Your task to perform on an android device: turn off notifications settings in the gmail app Image 0: 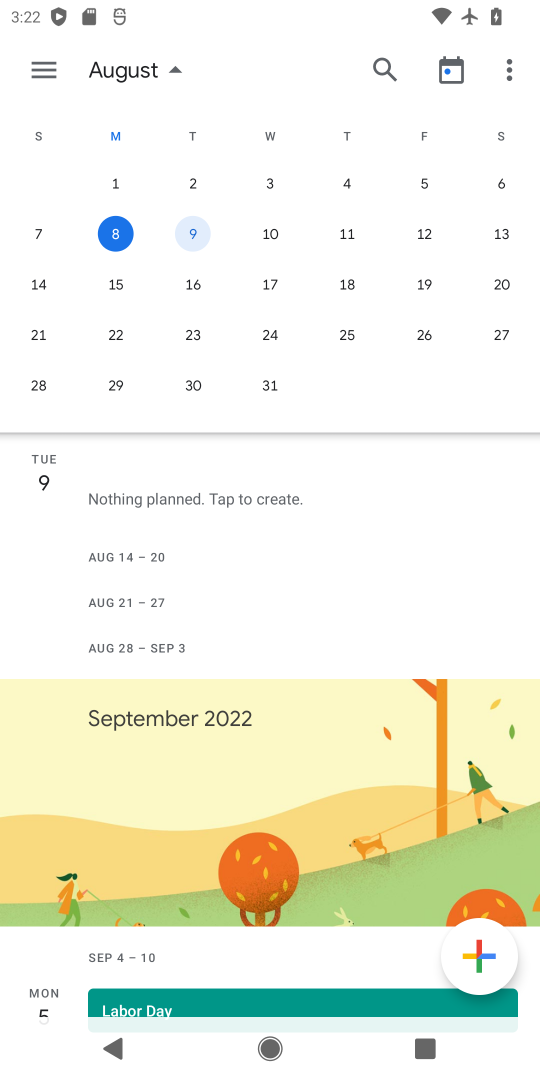
Step 0: press home button
Your task to perform on an android device: turn off notifications settings in the gmail app Image 1: 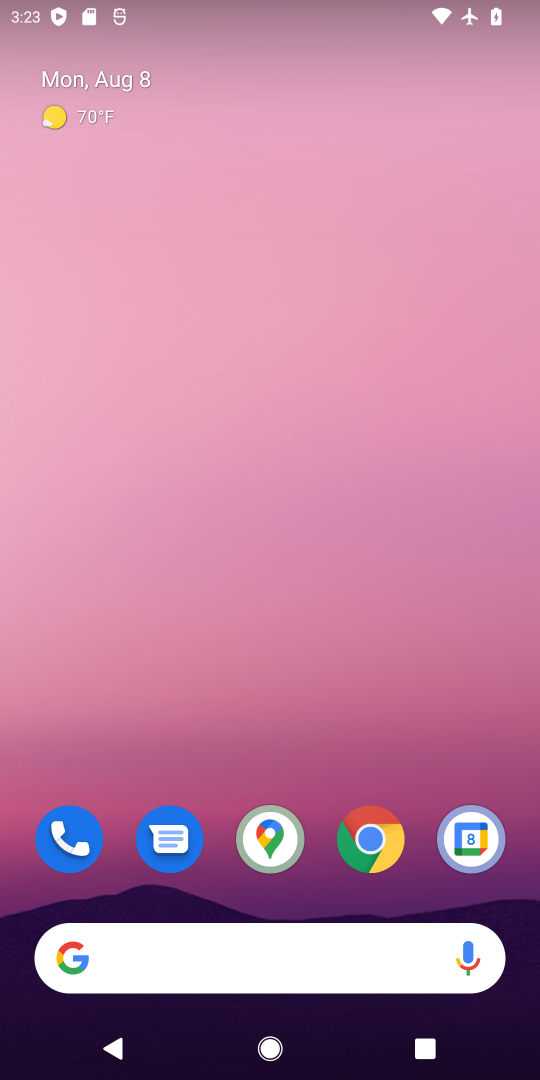
Step 1: drag from (420, 765) to (460, 242)
Your task to perform on an android device: turn off notifications settings in the gmail app Image 2: 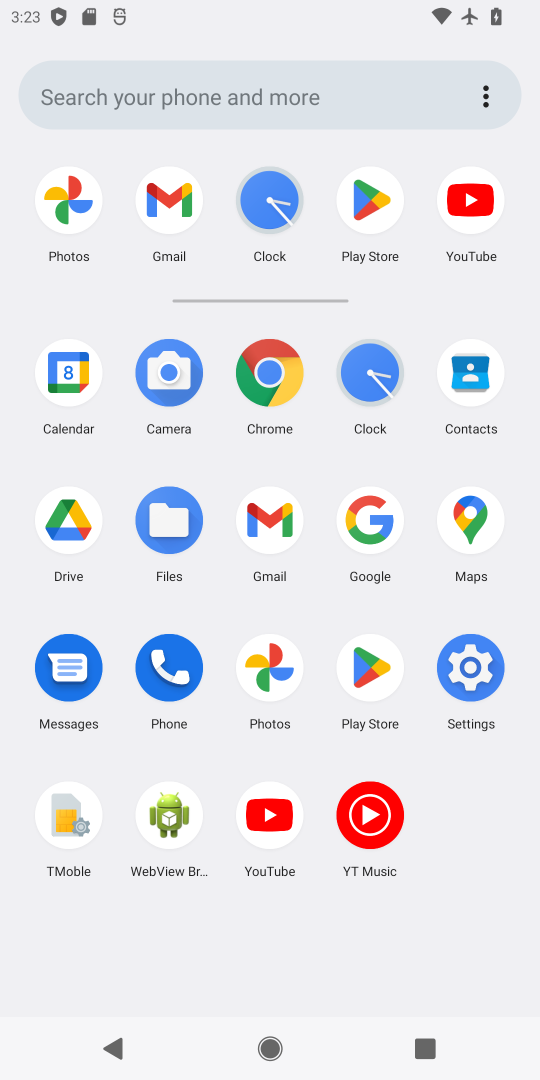
Step 2: click (267, 531)
Your task to perform on an android device: turn off notifications settings in the gmail app Image 3: 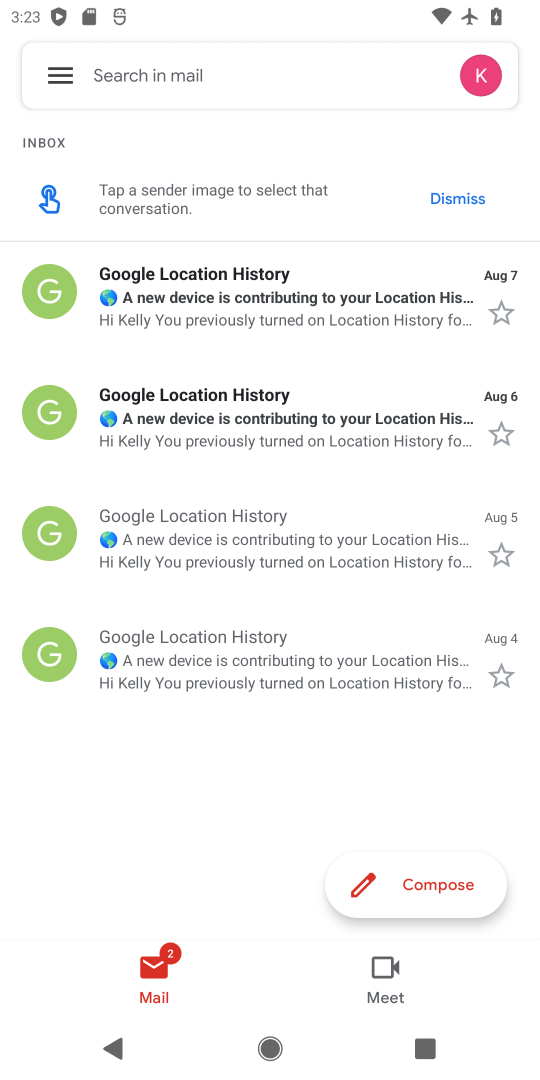
Step 3: click (58, 69)
Your task to perform on an android device: turn off notifications settings in the gmail app Image 4: 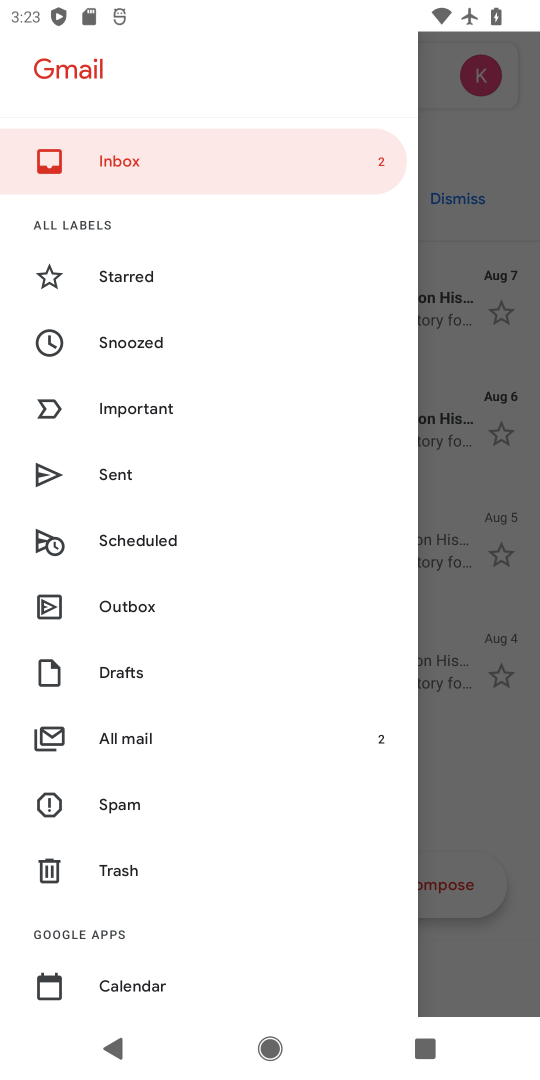
Step 4: drag from (288, 574) to (326, 419)
Your task to perform on an android device: turn off notifications settings in the gmail app Image 5: 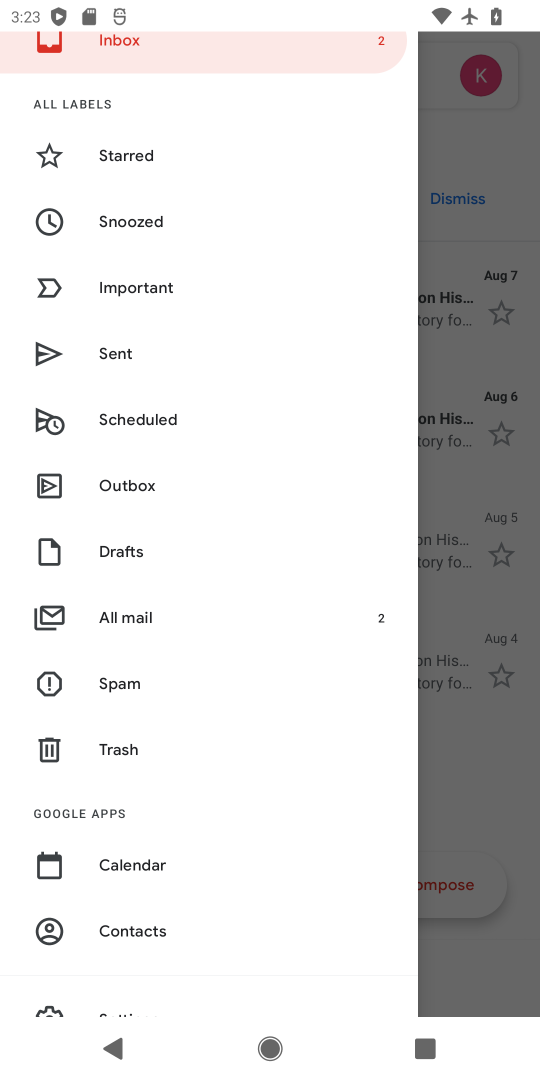
Step 5: drag from (291, 653) to (280, 464)
Your task to perform on an android device: turn off notifications settings in the gmail app Image 6: 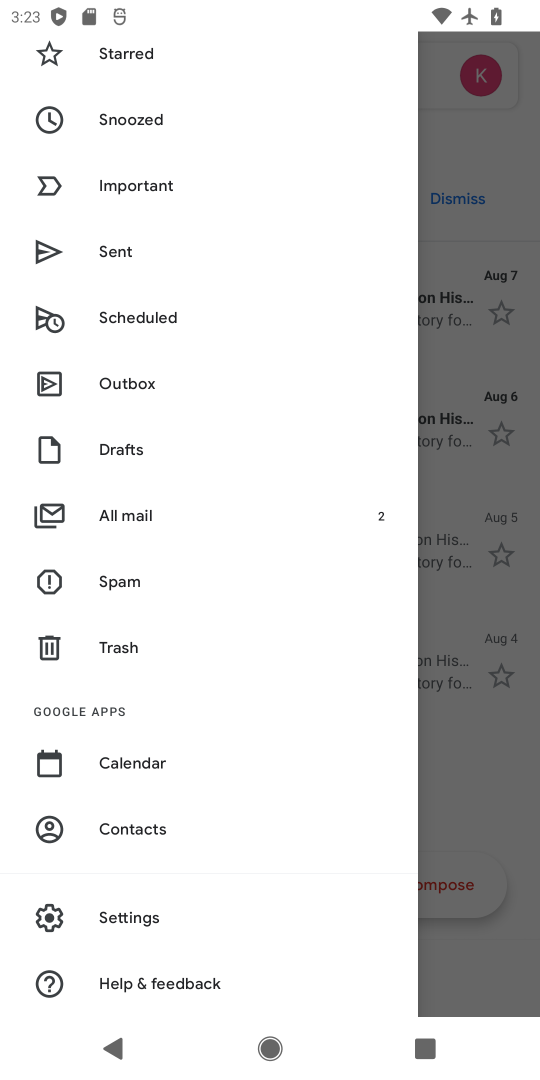
Step 6: drag from (260, 704) to (277, 497)
Your task to perform on an android device: turn off notifications settings in the gmail app Image 7: 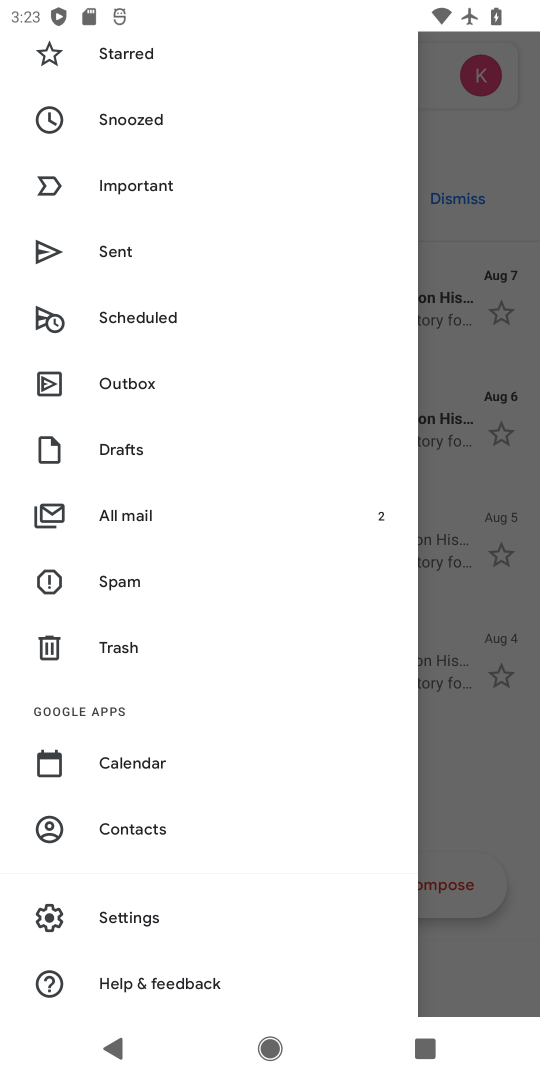
Step 7: click (147, 919)
Your task to perform on an android device: turn off notifications settings in the gmail app Image 8: 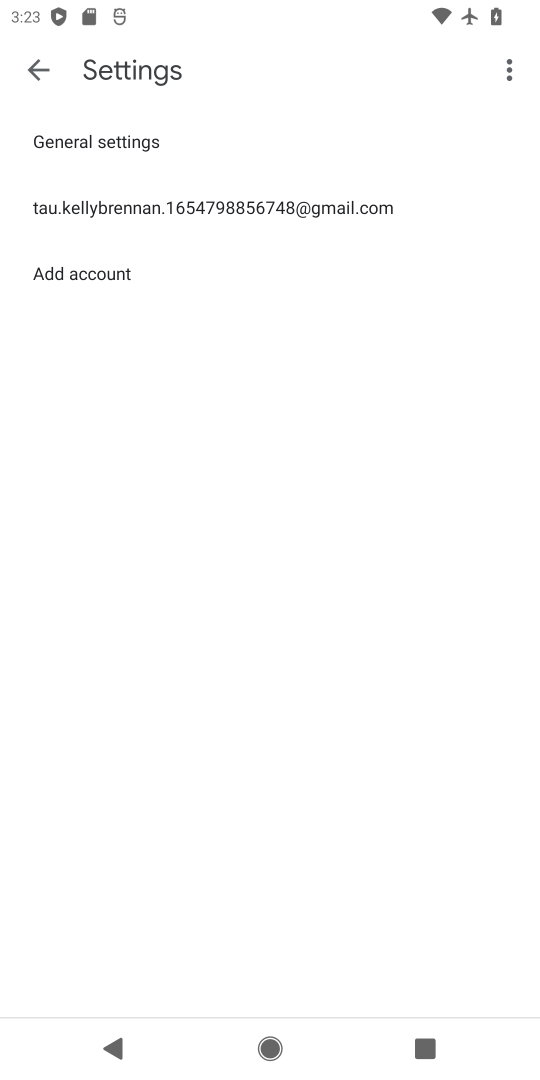
Step 8: click (204, 197)
Your task to perform on an android device: turn off notifications settings in the gmail app Image 9: 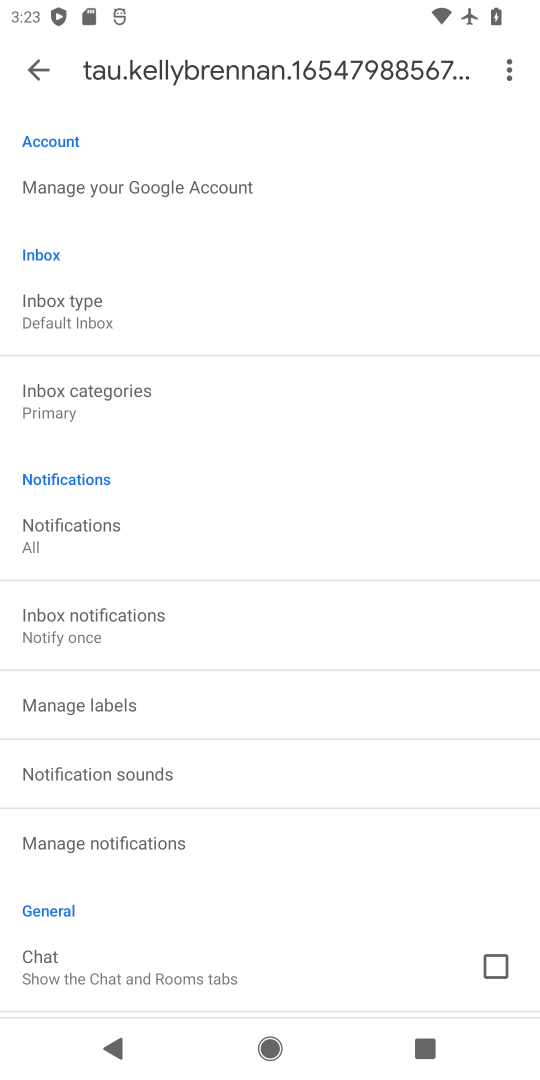
Step 9: drag from (422, 532) to (431, 417)
Your task to perform on an android device: turn off notifications settings in the gmail app Image 10: 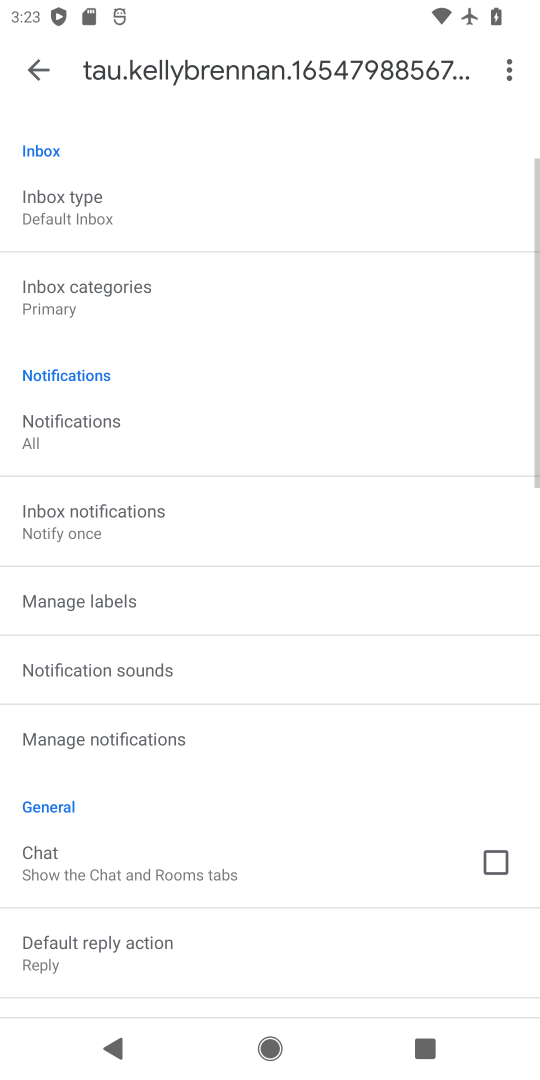
Step 10: drag from (353, 626) to (367, 532)
Your task to perform on an android device: turn off notifications settings in the gmail app Image 11: 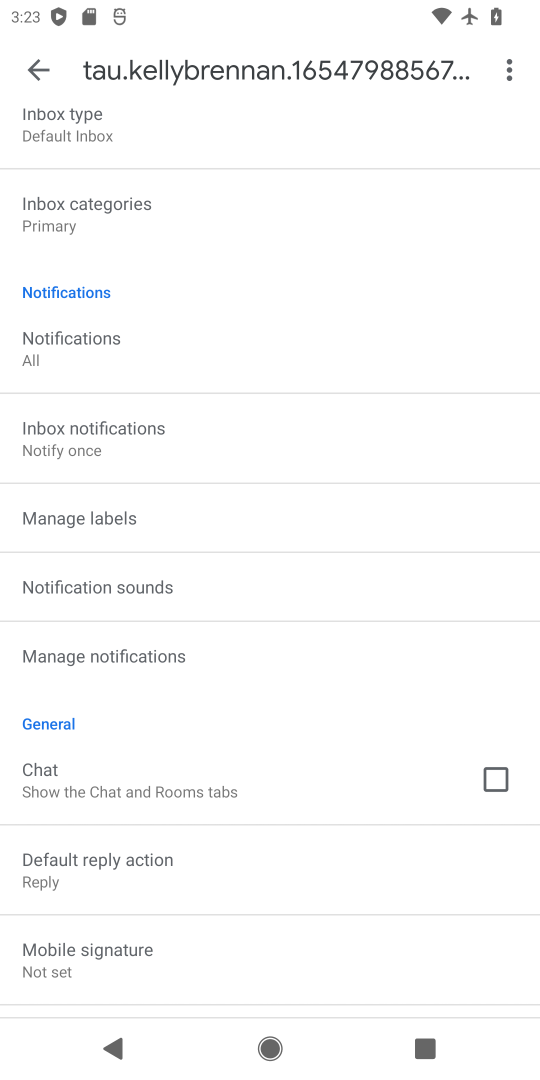
Step 11: drag from (361, 697) to (369, 580)
Your task to perform on an android device: turn off notifications settings in the gmail app Image 12: 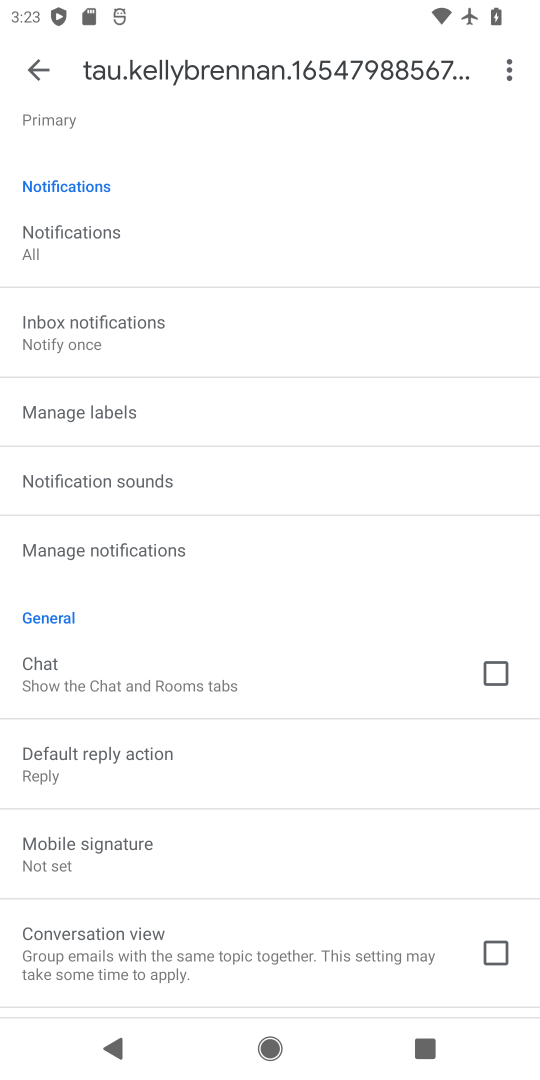
Step 12: drag from (368, 693) to (369, 569)
Your task to perform on an android device: turn off notifications settings in the gmail app Image 13: 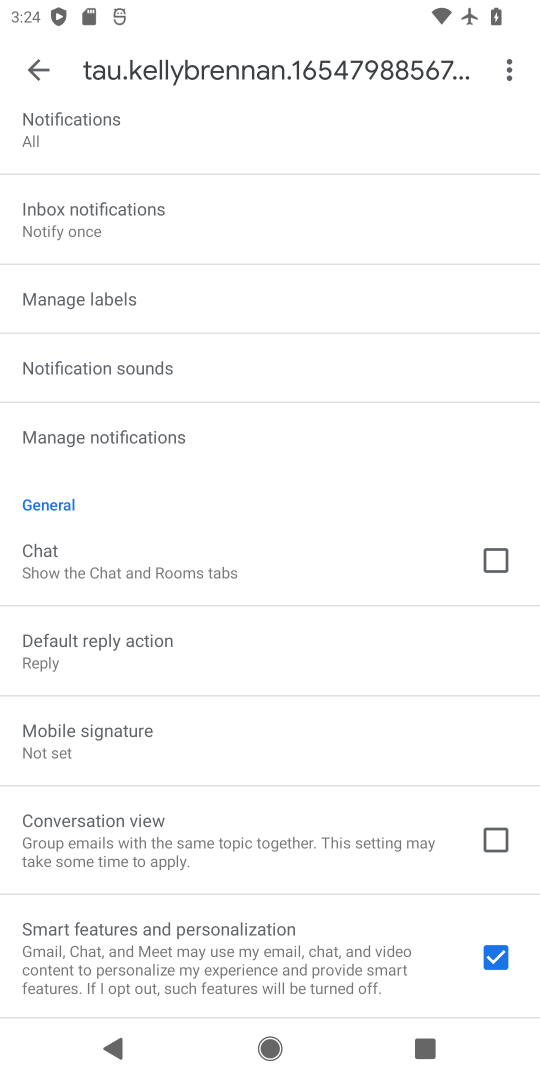
Step 13: click (346, 451)
Your task to perform on an android device: turn off notifications settings in the gmail app Image 14: 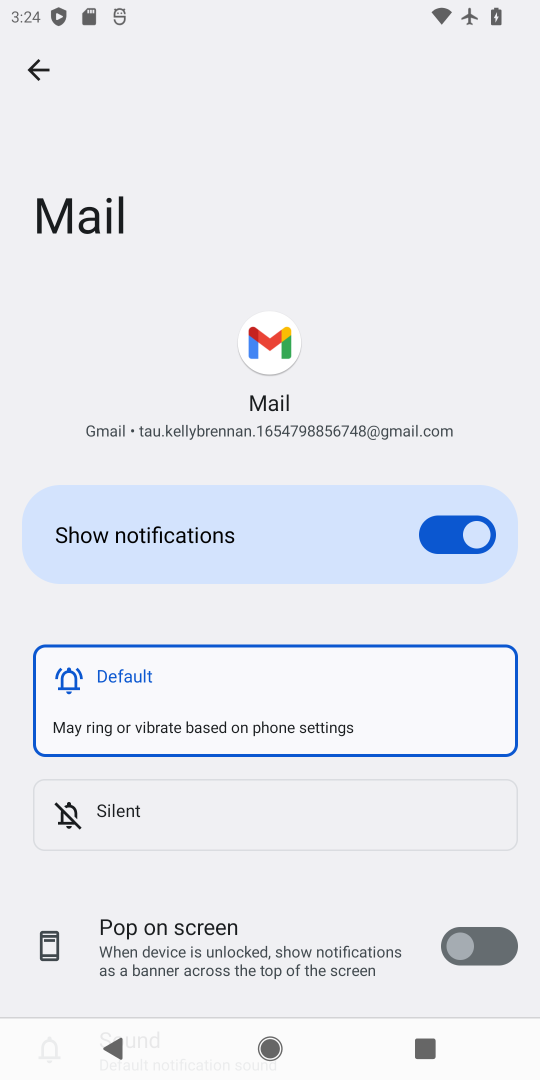
Step 14: click (436, 526)
Your task to perform on an android device: turn off notifications settings in the gmail app Image 15: 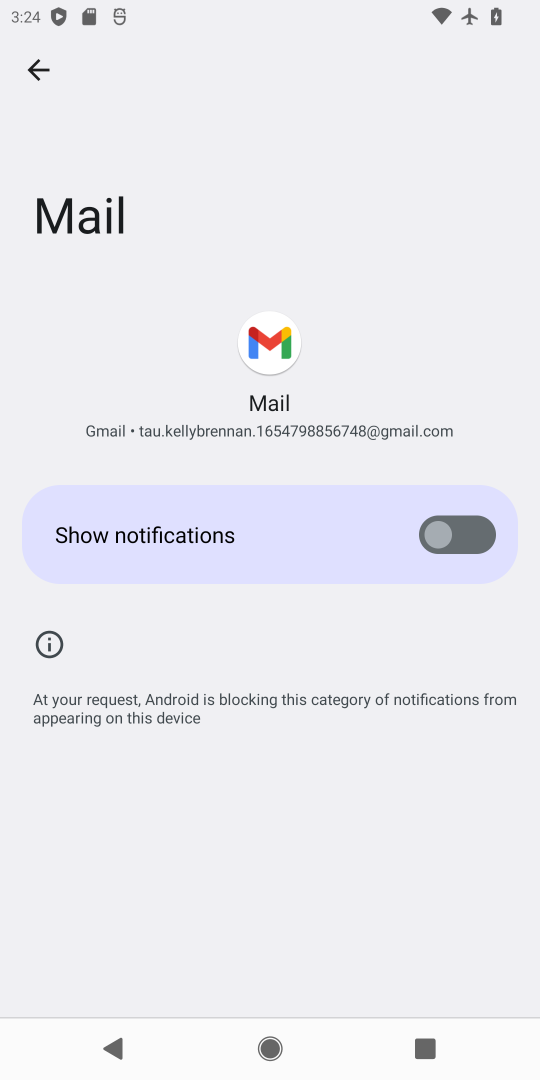
Step 15: task complete